Your task to perform on an android device: empty trash in google photos Image 0: 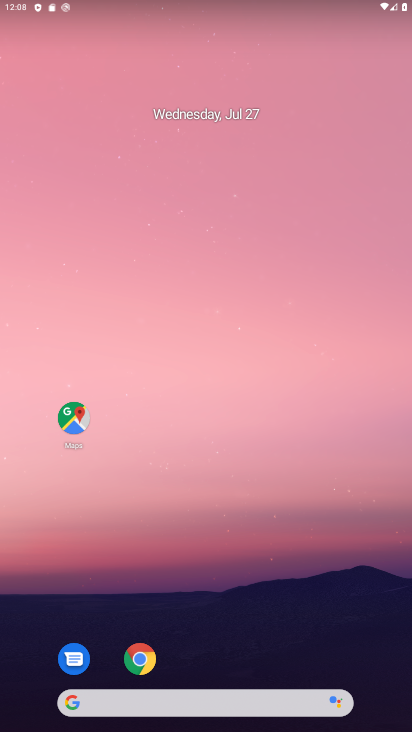
Step 0: drag from (353, 604) to (192, 130)
Your task to perform on an android device: empty trash in google photos Image 1: 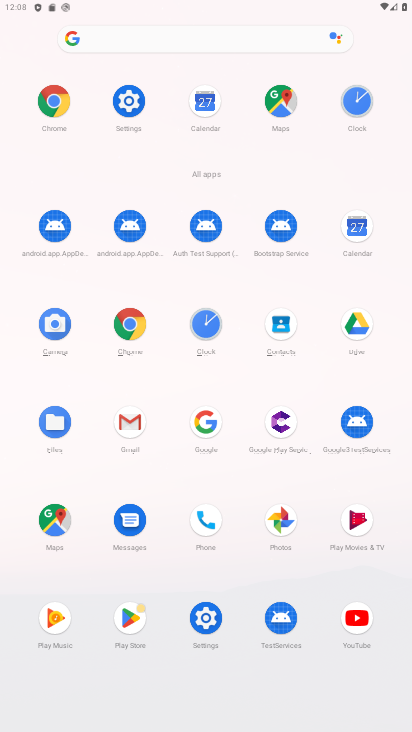
Step 1: click (279, 517)
Your task to perform on an android device: empty trash in google photos Image 2: 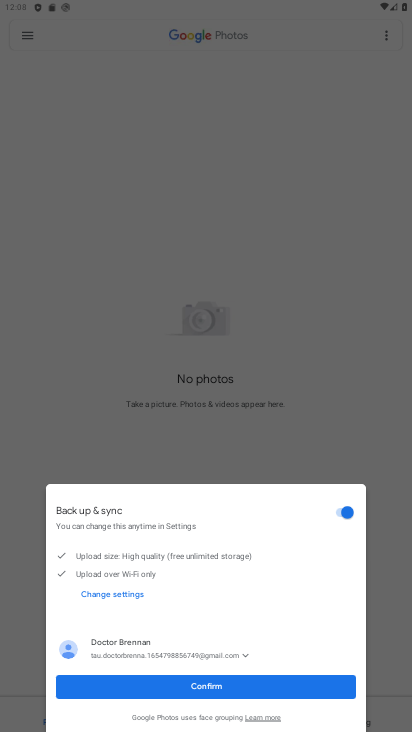
Step 2: click (211, 680)
Your task to perform on an android device: empty trash in google photos Image 3: 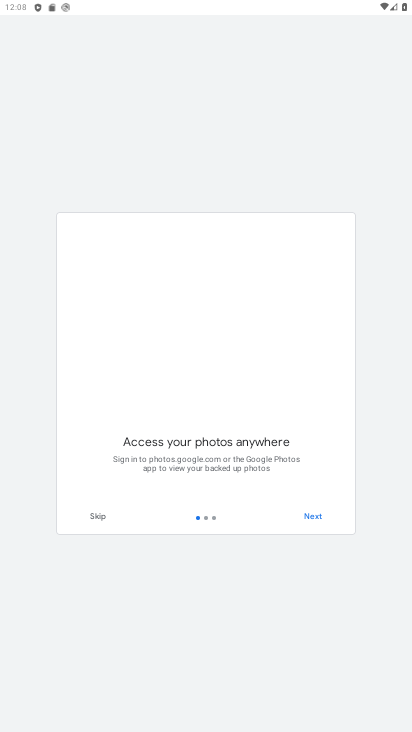
Step 3: click (308, 513)
Your task to perform on an android device: empty trash in google photos Image 4: 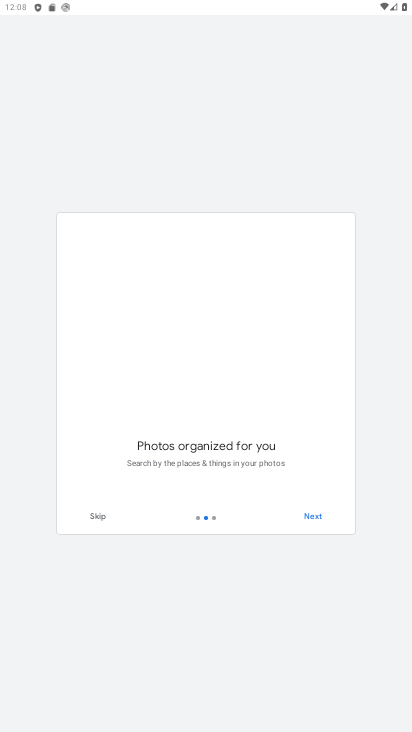
Step 4: click (309, 511)
Your task to perform on an android device: empty trash in google photos Image 5: 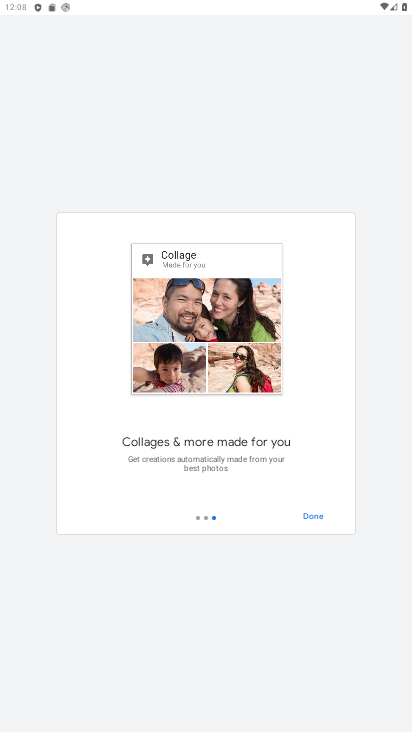
Step 5: click (324, 514)
Your task to perform on an android device: empty trash in google photos Image 6: 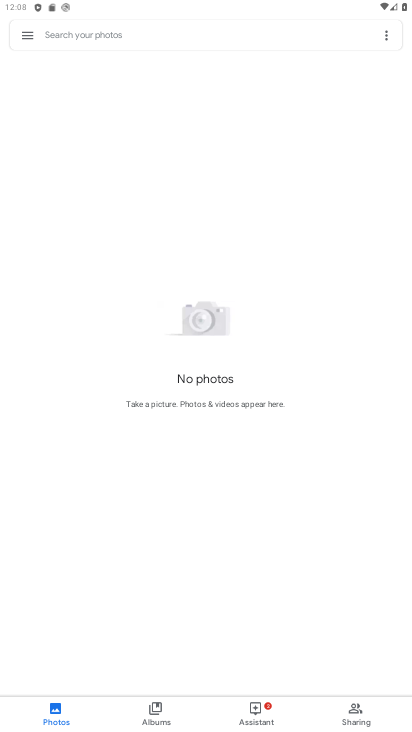
Step 6: click (26, 28)
Your task to perform on an android device: empty trash in google photos Image 7: 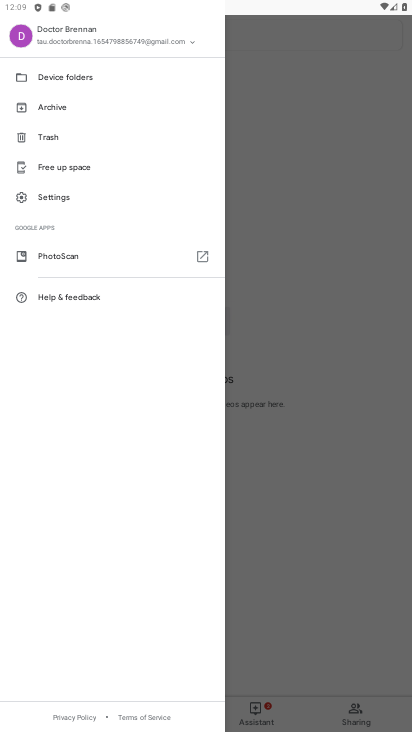
Step 7: click (73, 140)
Your task to perform on an android device: empty trash in google photos Image 8: 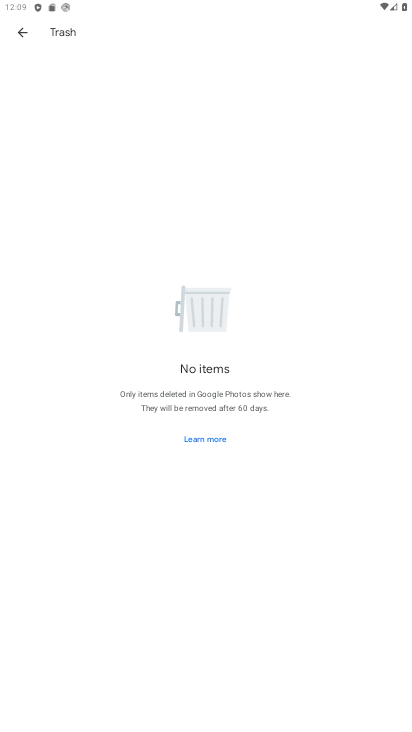
Step 8: task complete